Your task to perform on an android device: Empty the shopping cart on target.com. Image 0: 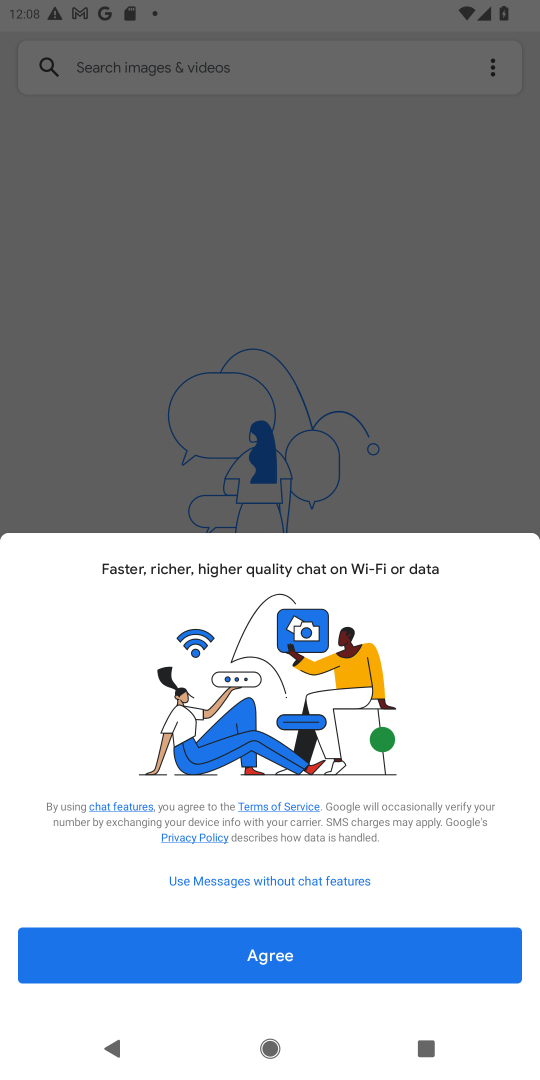
Step 0: press home button
Your task to perform on an android device: Empty the shopping cart on target.com. Image 1: 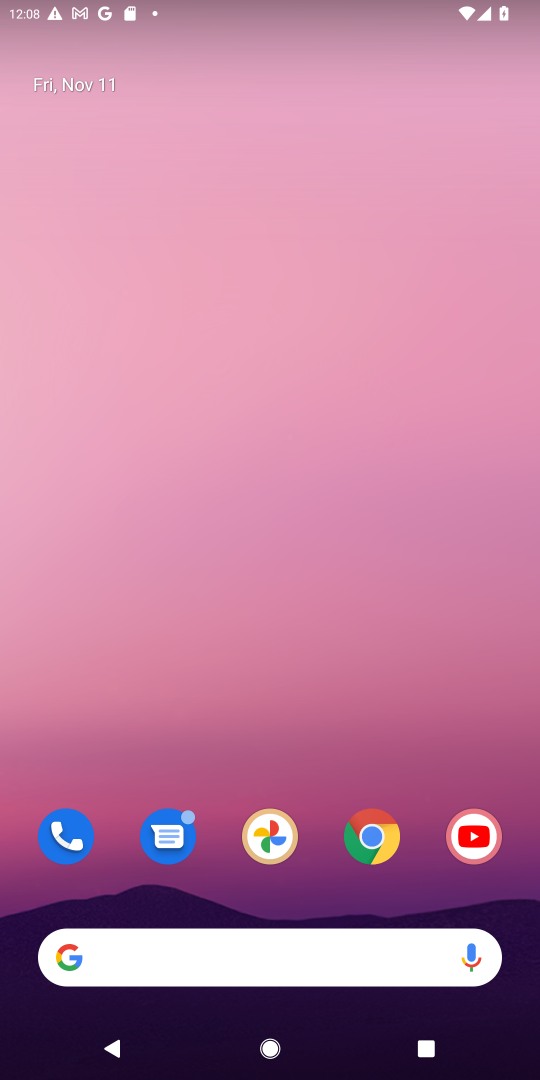
Step 1: click (262, 957)
Your task to perform on an android device: Empty the shopping cart on target.com. Image 2: 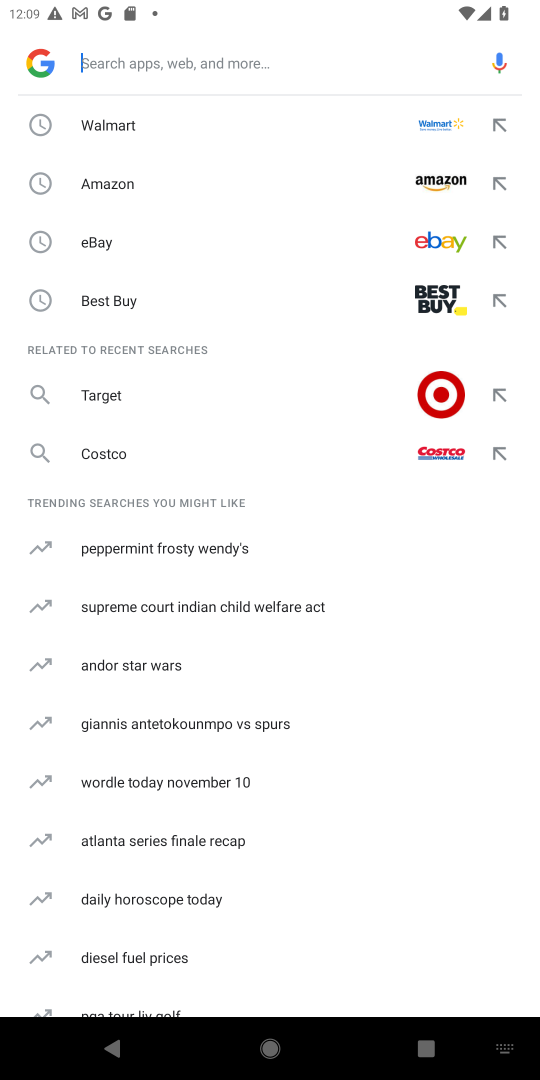
Step 2: click (124, 380)
Your task to perform on an android device: Empty the shopping cart on target.com. Image 3: 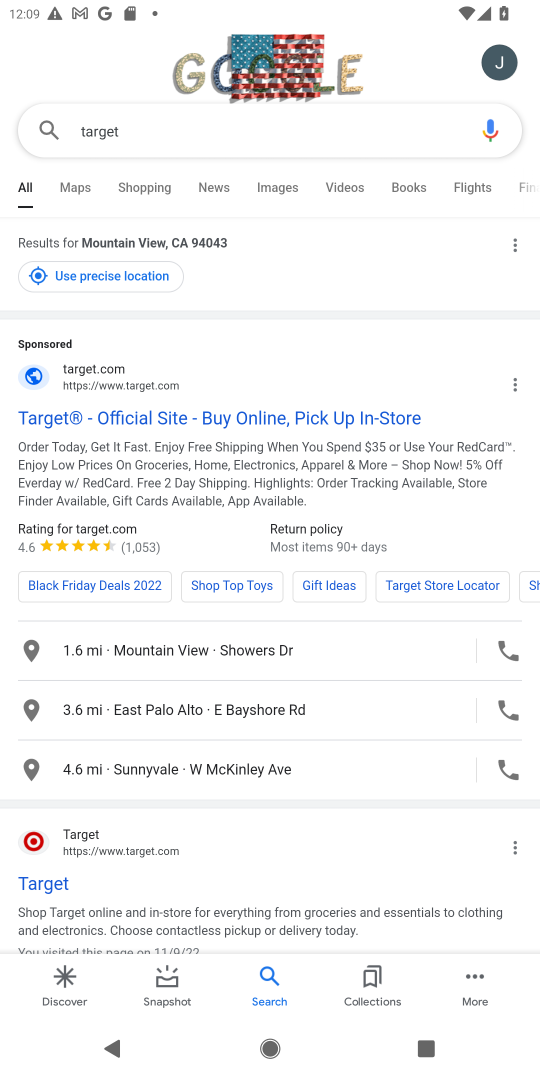
Step 3: click (36, 882)
Your task to perform on an android device: Empty the shopping cart on target.com. Image 4: 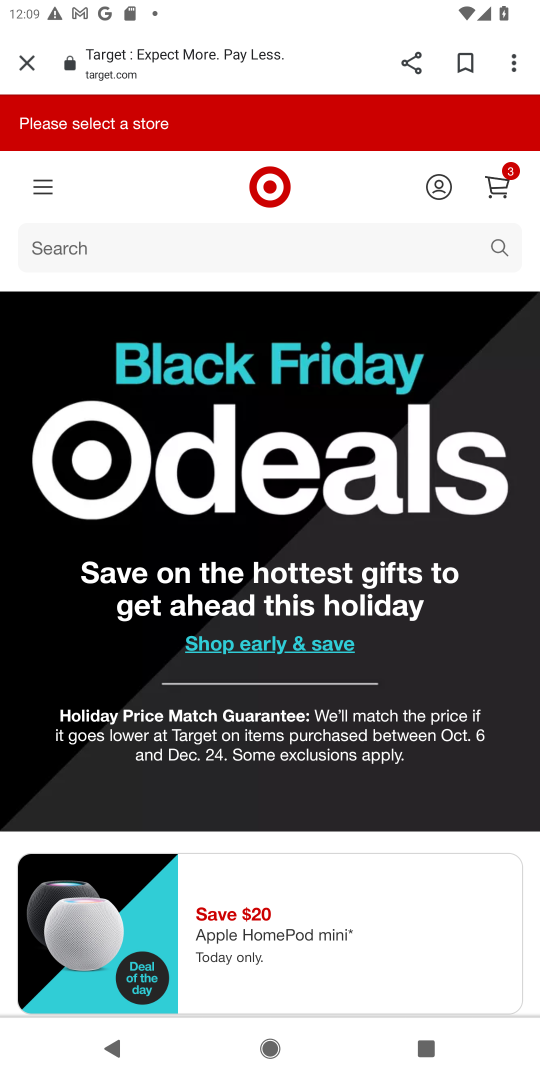
Step 4: click (494, 186)
Your task to perform on an android device: Empty the shopping cart on target.com. Image 5: 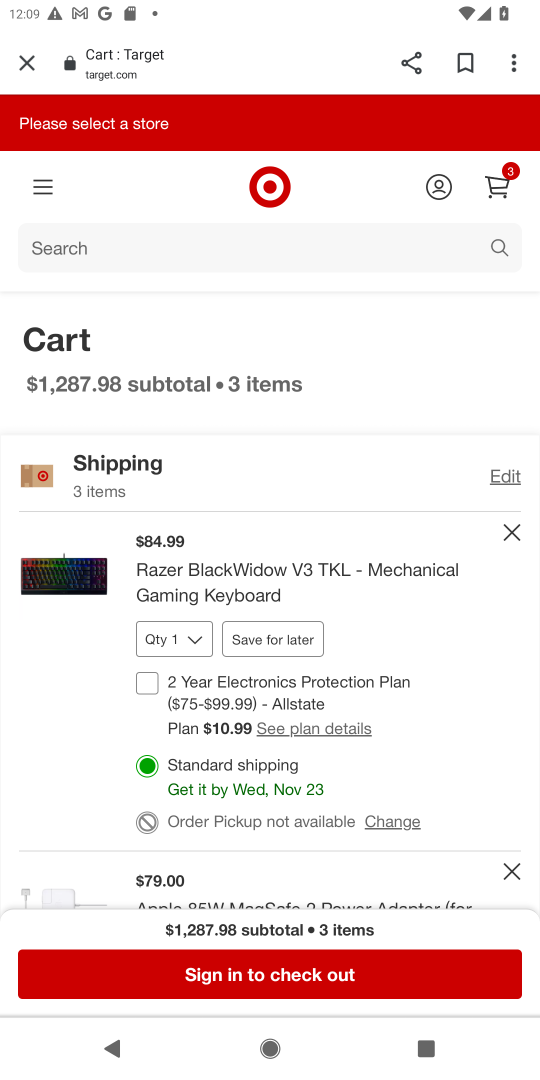
Step 5: click (509, 525)
Your task to perform on an android device: Empty the shopping cart on target.com. Image 6: 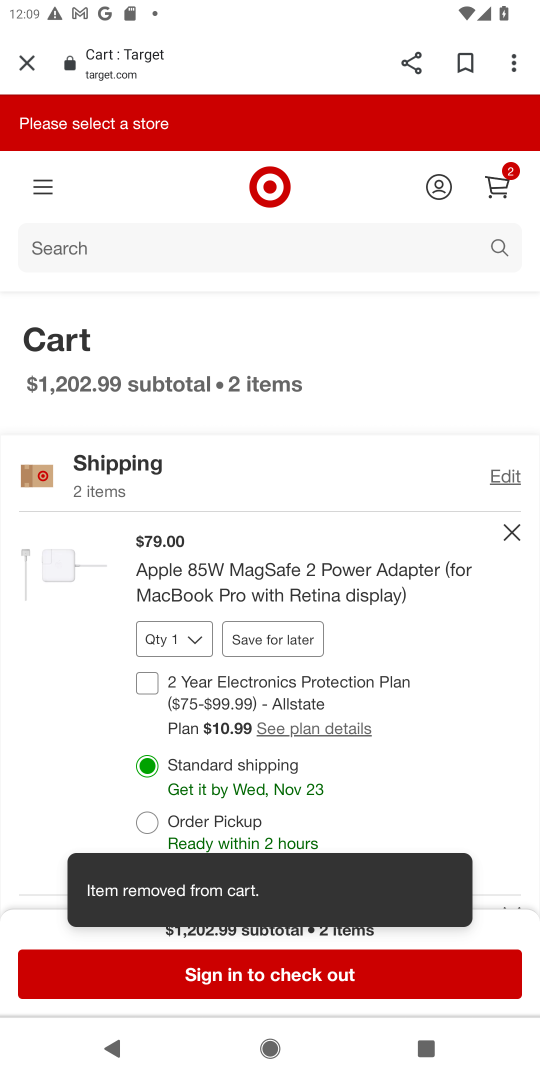
Step 6: click (509, 525)
Your task to perform on an android device: Empty the shopping cart on target.com. Image 7: 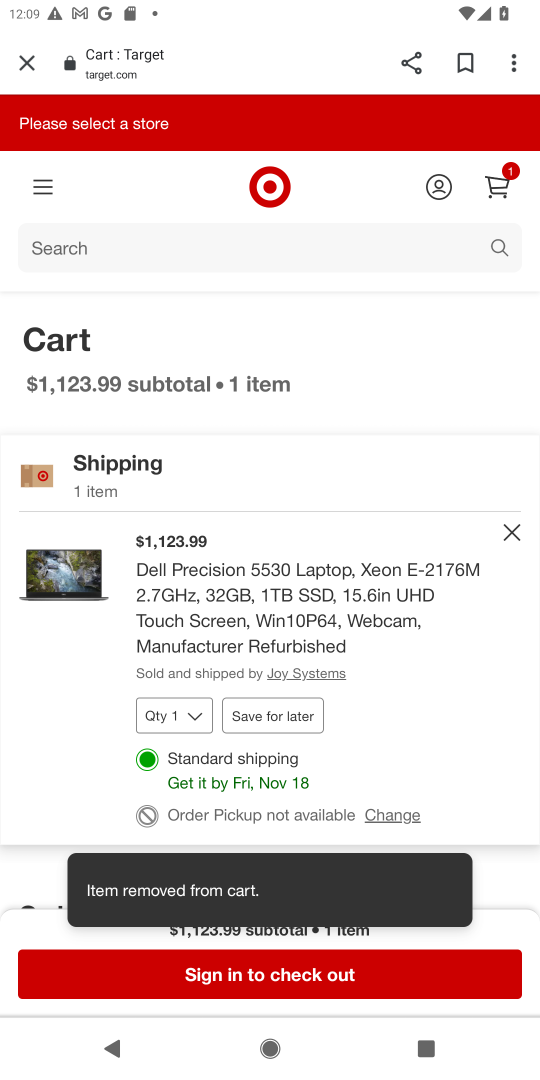
Step 7: click (509, 525)
Your task to perform on an android device: Empty the shopping cart on target.com. Image 8: 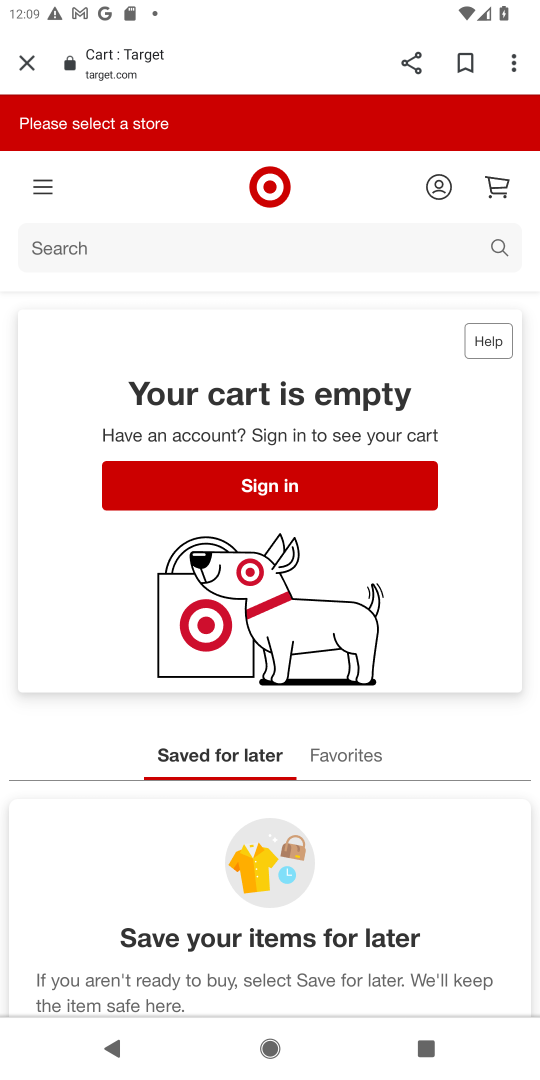
Step 8: task complete